Your task to perform on an android device: open sync settings in chrome Image 0: 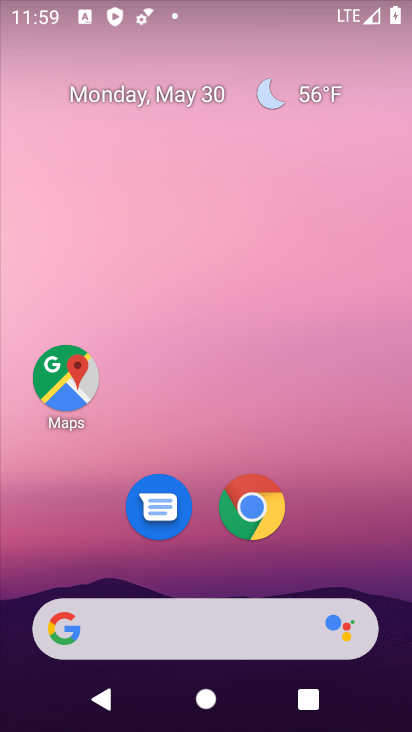
Step 0: drag from (380, 625) to (318, 108)
Your task to perform on an android device: open sync settings in chrome Image 1: 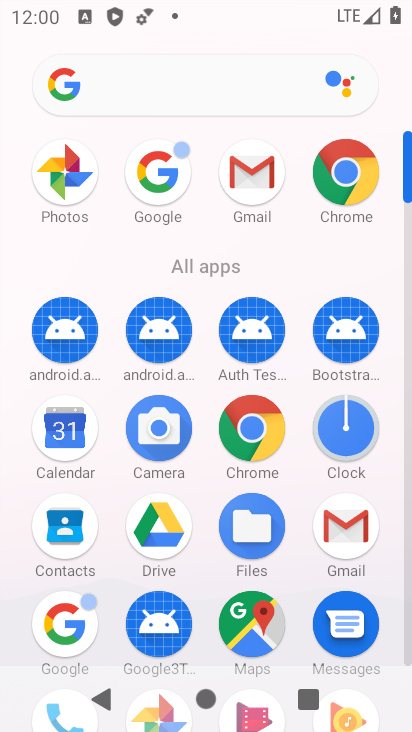
Step 1: click (359, 195)
Your task to perform on an android device: open sync settings in chrome Image 2: 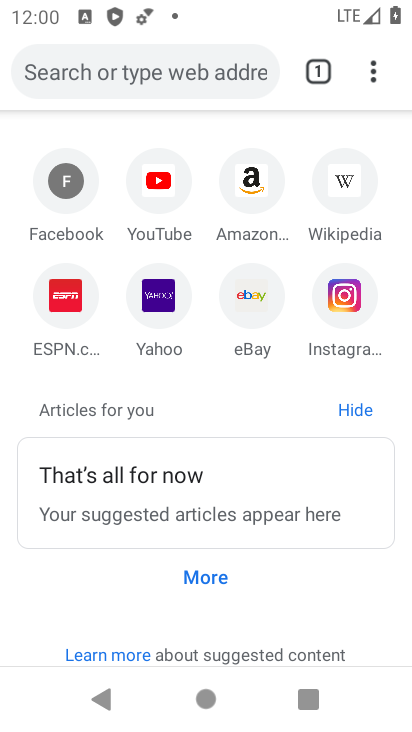
Step 2: click (383, 70)
Your task to perform on an android device: open sync settings in chrome Image 3: 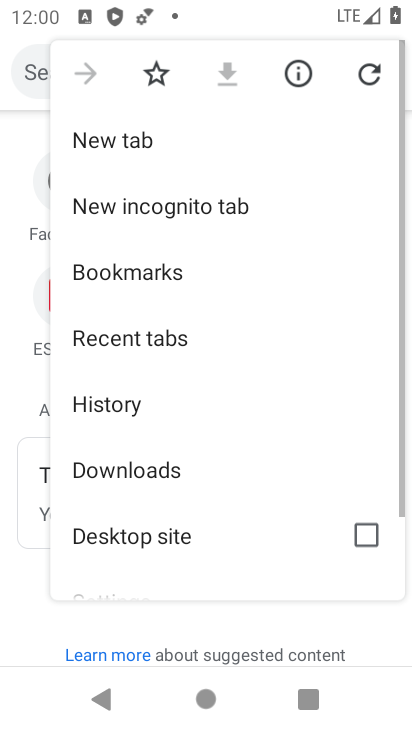
Step 3: drag from (155, 564) to (259, 88)
Your task to perform on an android device: open sync settings in chrome Image 4: 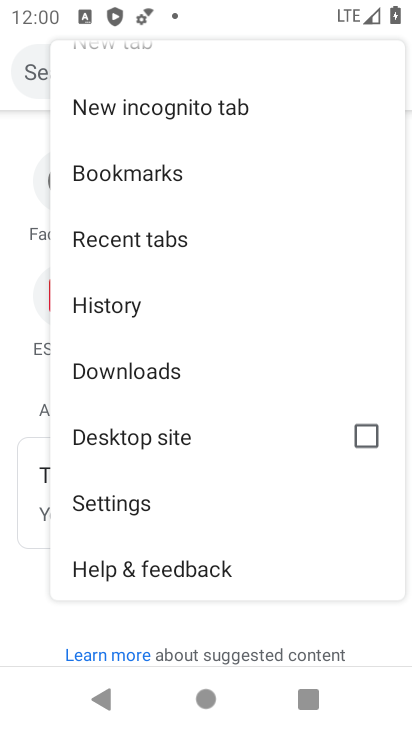
Step 4: click (145, 518)
Your task to perform on an android device: open sync settings in chrome Image 5: 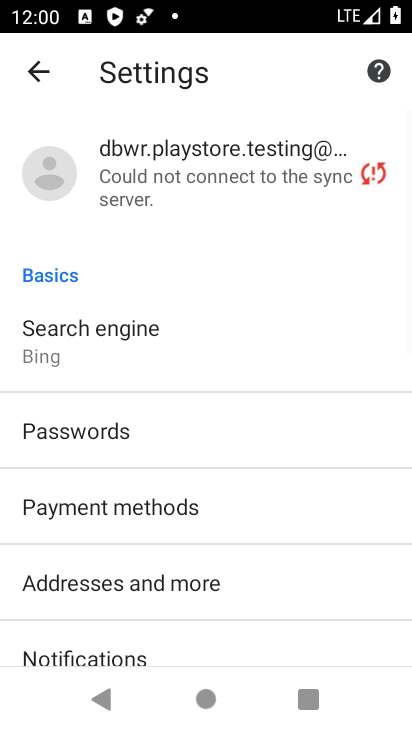
Step 5: drag from (223, 456) to (253, 144)
Your task to perform on an android device: open sync settings in chrome Image 6: 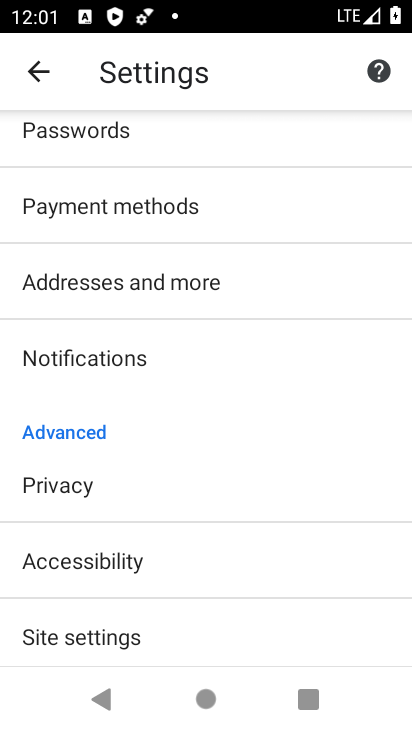
Step 6: drag from (117, 688) to (196, 239)
Your task to perform on an android device: open sync settings in chrome Image 7: 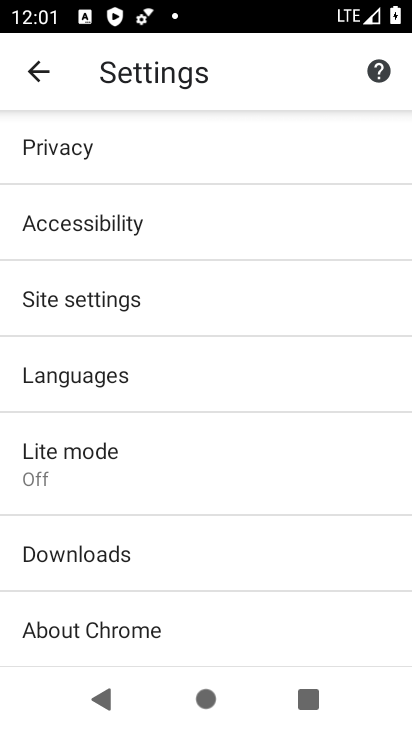
Step 7: click (165, 318)
Your task to perform on an android device: open sync settings in chrome Image 8: 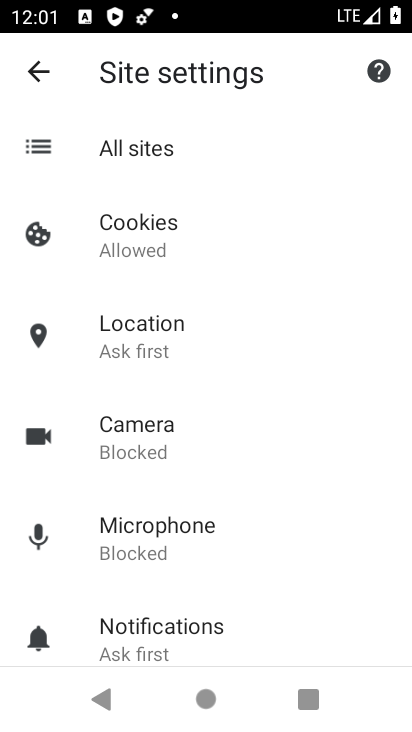
Step 8: drag from (191, 601) to (245, 185)
Your task to perform on an android device: open sync settings in chrome Image 9: 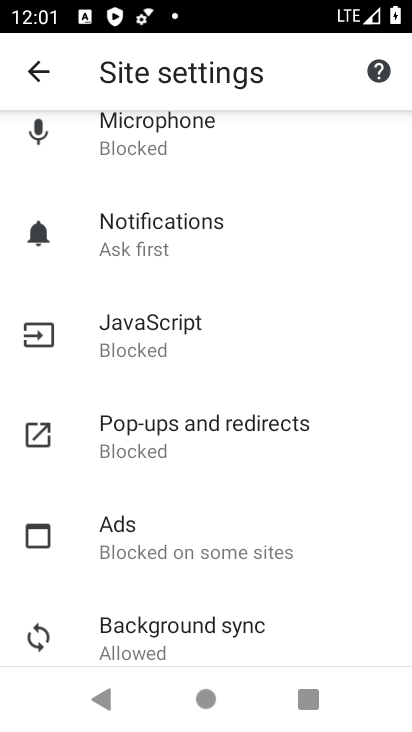
Step 9: click (156, 625)
Your task to perform on an android device: open sync settings in chrome Image 10: 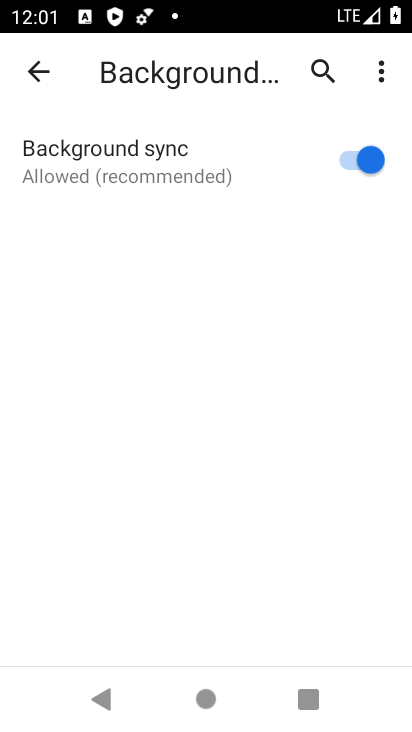
Step 10: task complete